Your task to perform on an android device: Search for sushi restaurants on Maps Image 0: 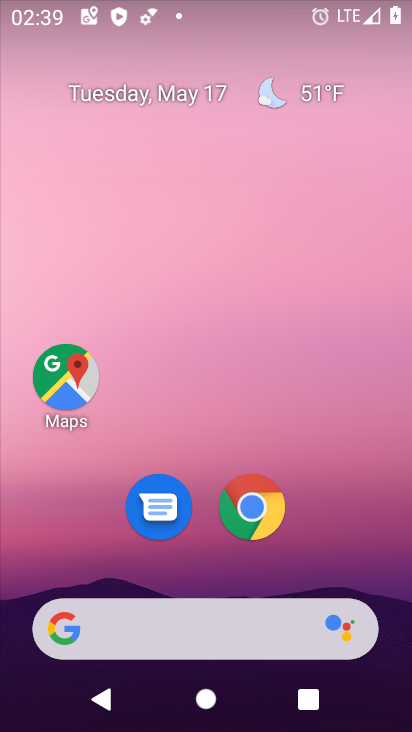
Step 0: click (67, 381)
Your task to perform on an android device: Search for sushi restaurants on Maps Image 1: 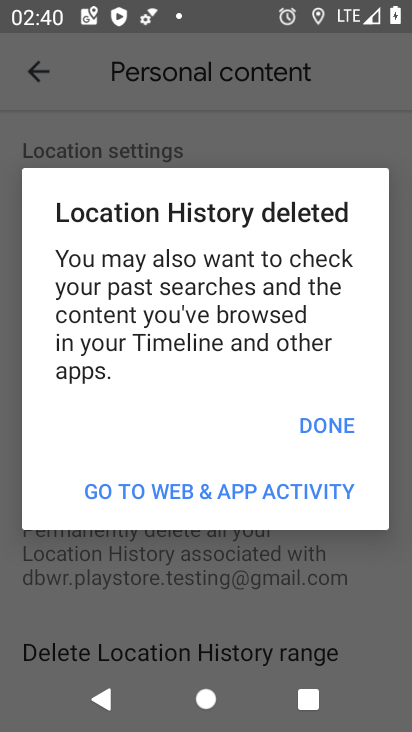
Step 1: press back button
Your task to perform on an android device: Search for sushi restaurants on Maps Image 2: 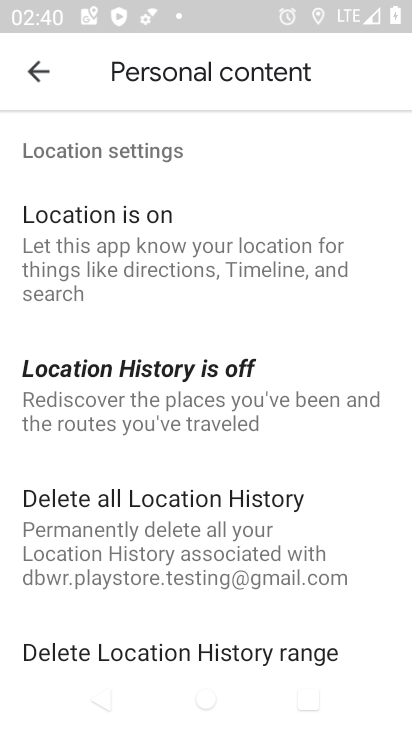
Step 2: click (31, 74)
Your task to perform on an android device: Search for sushi restaurants on Maps Image 3: 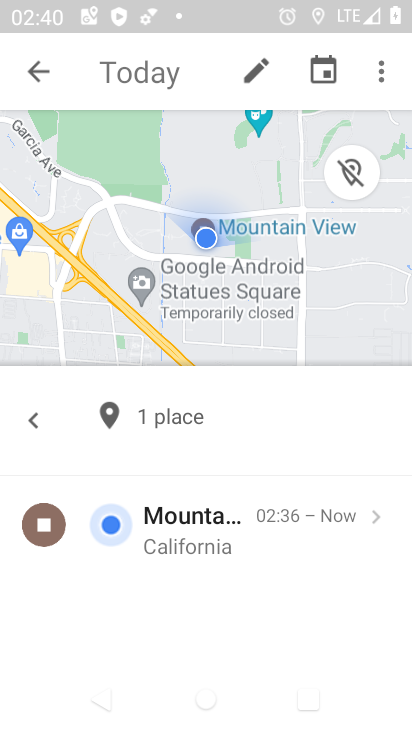
Step 3: click (42, 76)
Your task to perform on an android device: Search for sushi restaurants on Maps Image 4: 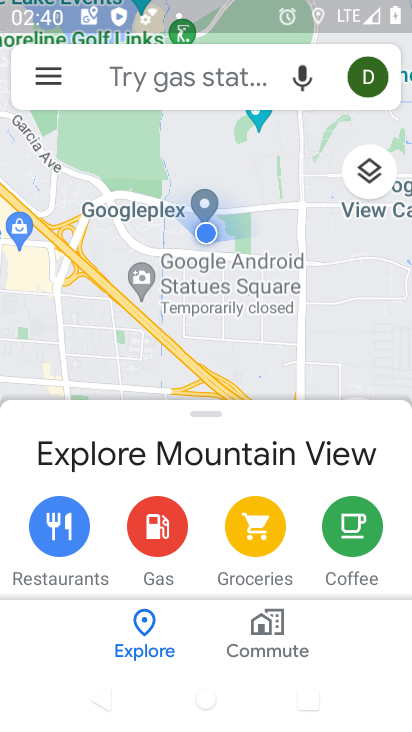
Step 4: click (129, 76)
Your task to perform on an android device: Search for sushi restaurants on Maps Image 5: 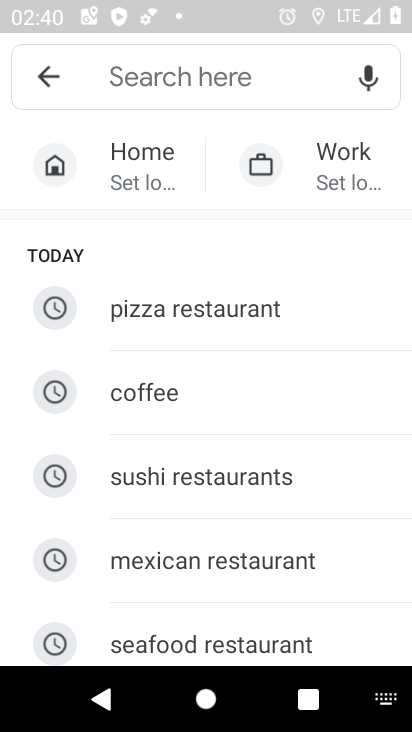
Step 5: type "sushi restaurants"
Your task to perform on an android device: Search for sushi restaurants on Maps Image 6: 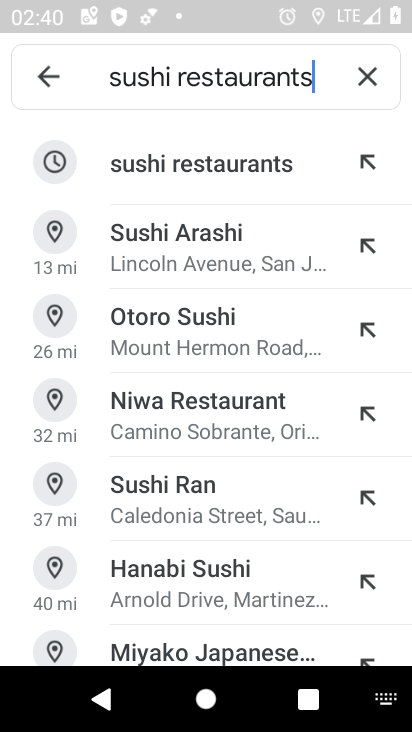
Step 6: click (183, 147)
Your task to perform on an android device: Search for sushi restaurants on Maps Image 7: 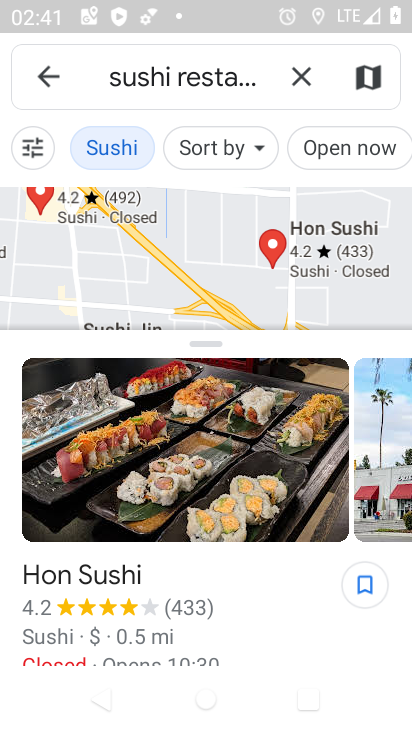
Step 7: task complete